Your task to perform on an android device: turn off airplane mode Image 0: 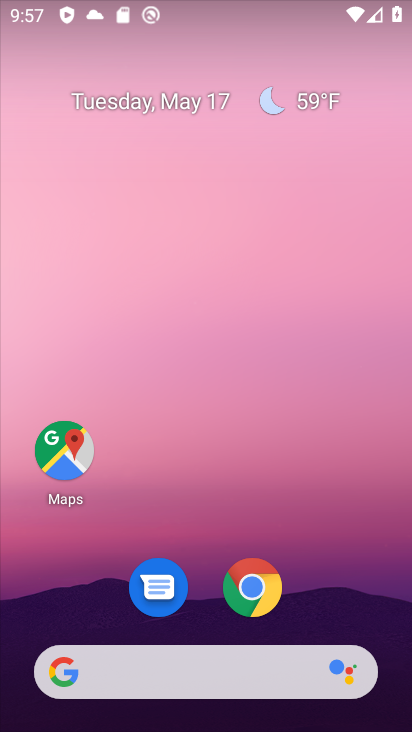
Step 0: drag from (325, 605) to (266, 80)
Your task to perform on an android device: turn off airplane mode Image 1: 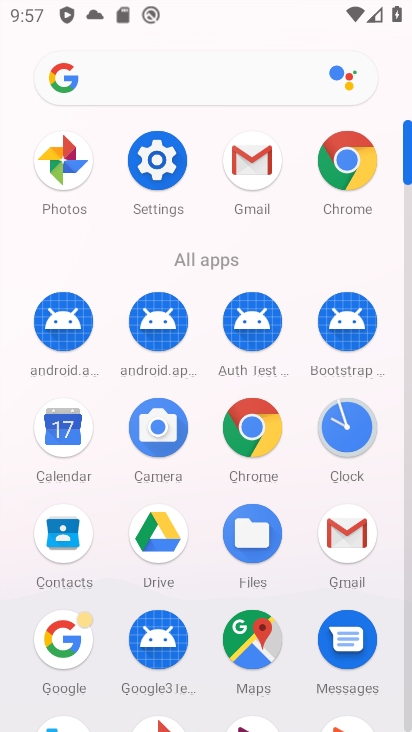
Step 1: click (153, 176)
Your task to perform on an android device: turn off airplane mode Image 2: 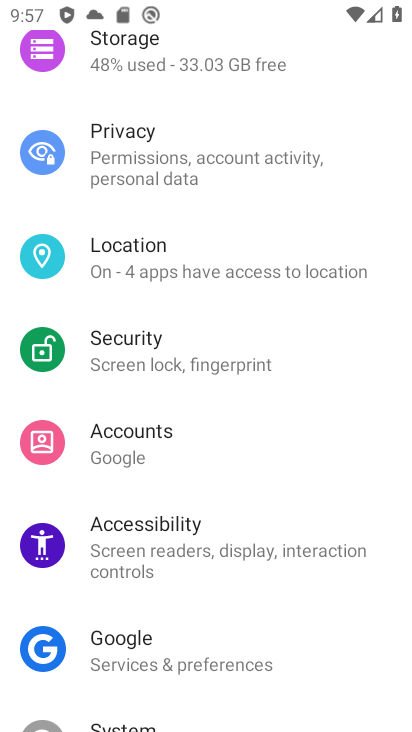
Step 2: drag from (215, 160) to (220, 624)
Your task to perform on an android device: turn off airplane mode Image 3: 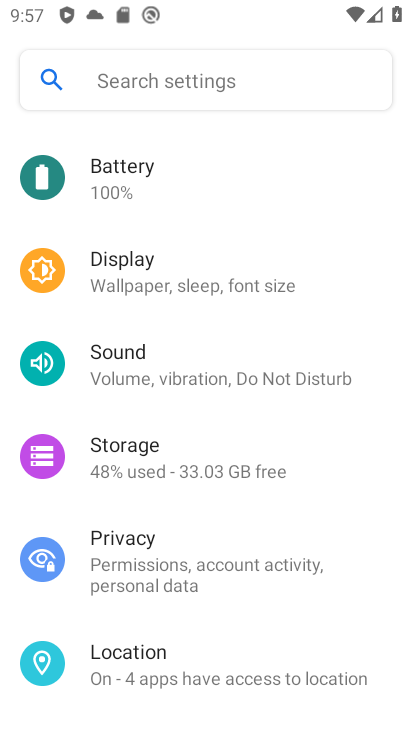
Step 3: drag from (273, 166) to (260, 604)
Your task to perform on an android device: turn off airplane mode Image 4: 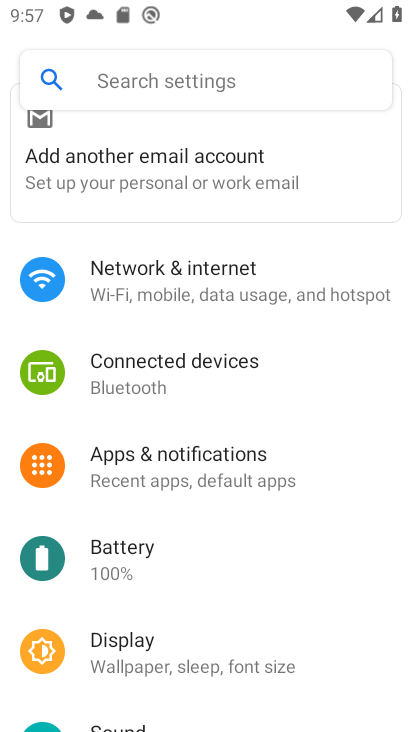
Step 4: click (180, 274)
Your task to perform on an android device: turn off airplane mode Image 5: 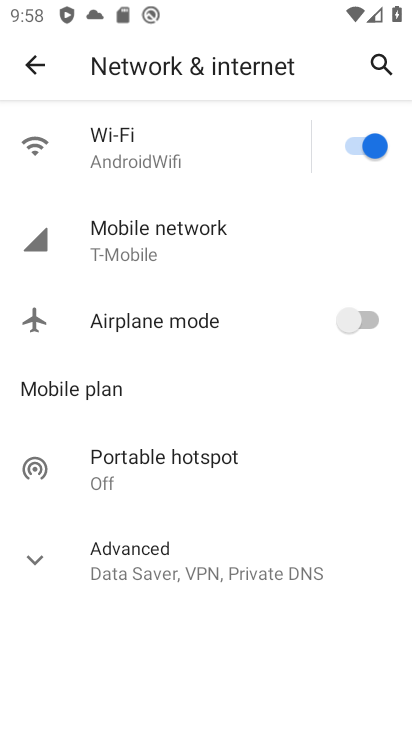
Step 5: task complete